Your task to perform on an android device: turn on sleep mode Image 0: 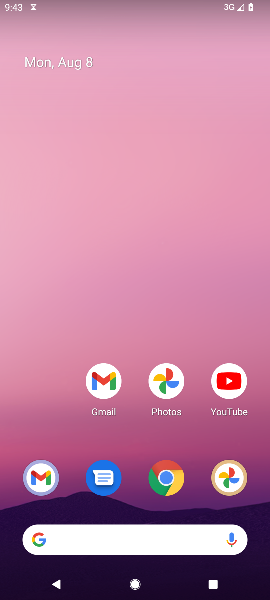
Step 0: drag from (212, 462) to (260, 379)
Your task to perform on an android device: turn on sleep mode Image 1: 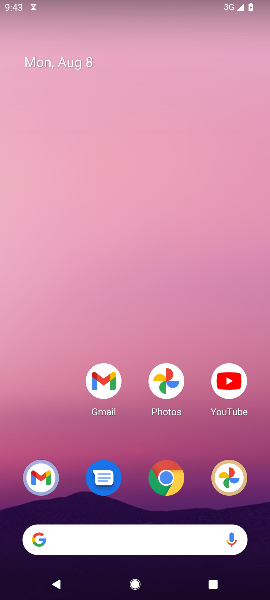
Step 1: drag from (106, 546) to (212, 138)
Your task to perform on an android device: turn on sleep mode Image 2: 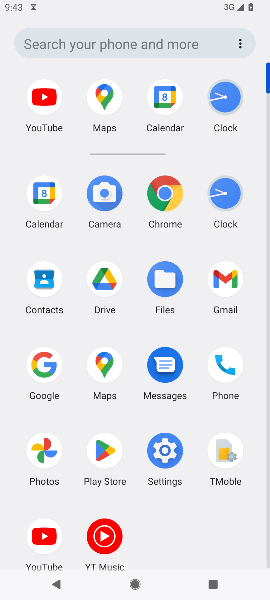
Step 2: click (160, 445)
Your task to perform on an android device: turn on sleep mode Image 3: 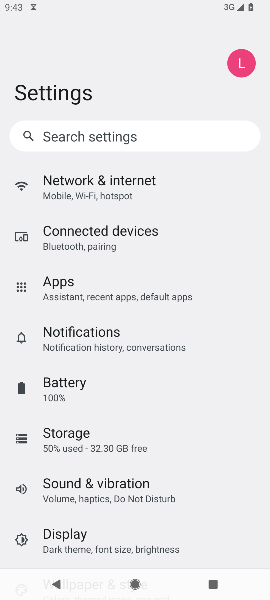
Step 3: task complete